Your task to perform on an android device: Go to Wikipedia Image 0: 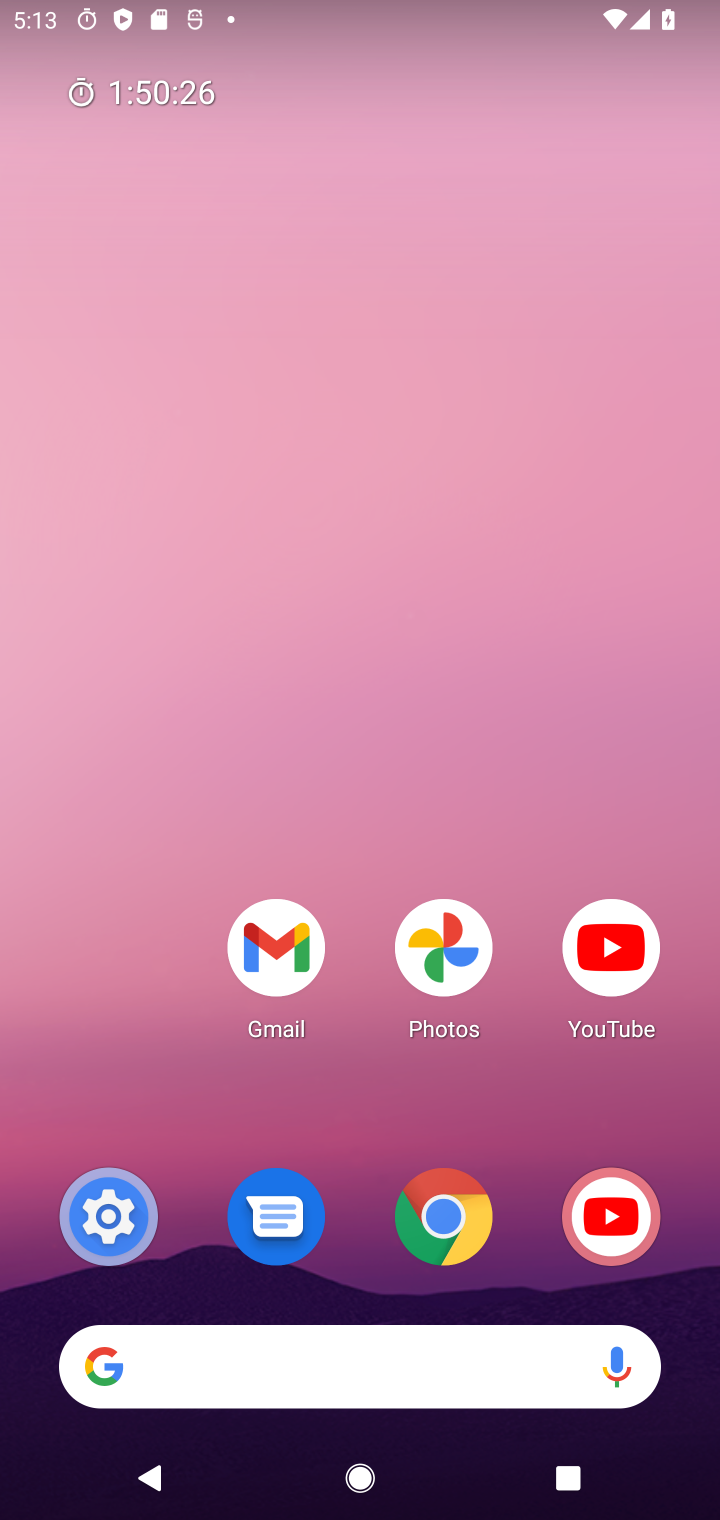
Step 0: click (436, 1201)
Your task to perform on an android device: Go to Wikipedia Image 1: 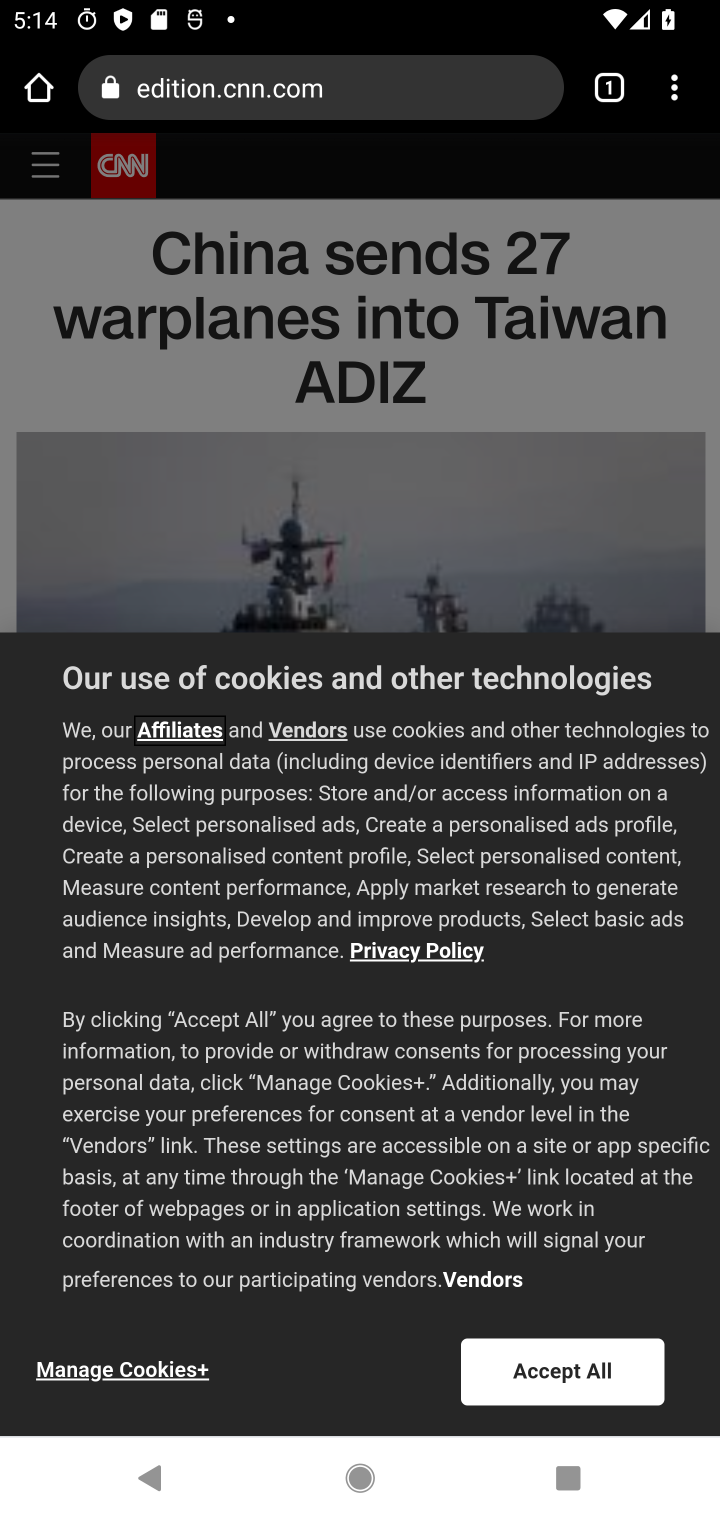
Step 1: click (608, 97)
Your task to perform on an android device: Go to Wikipedia Image 2: 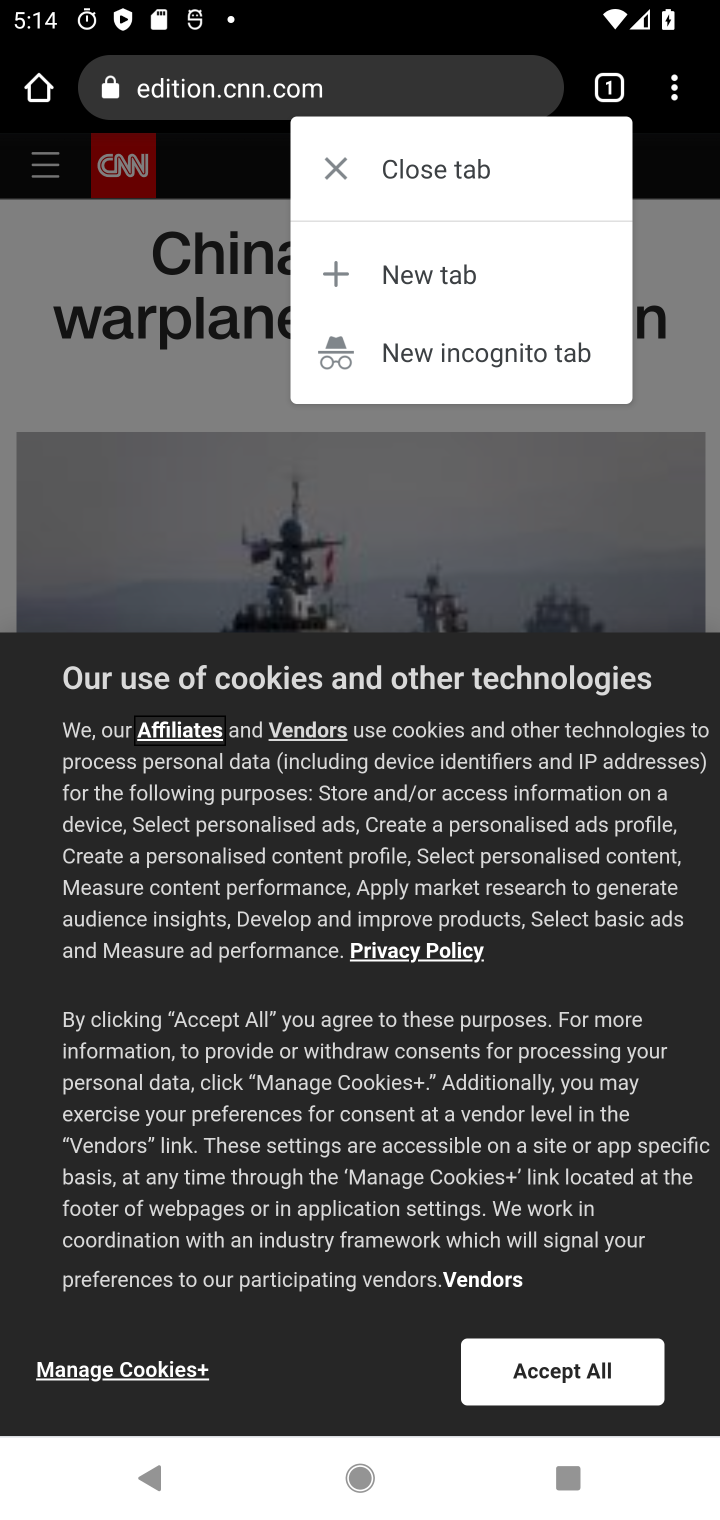
Step 2: click (414, 280)
Your task to perform on an android device: Go to Wikipedia Image 3: 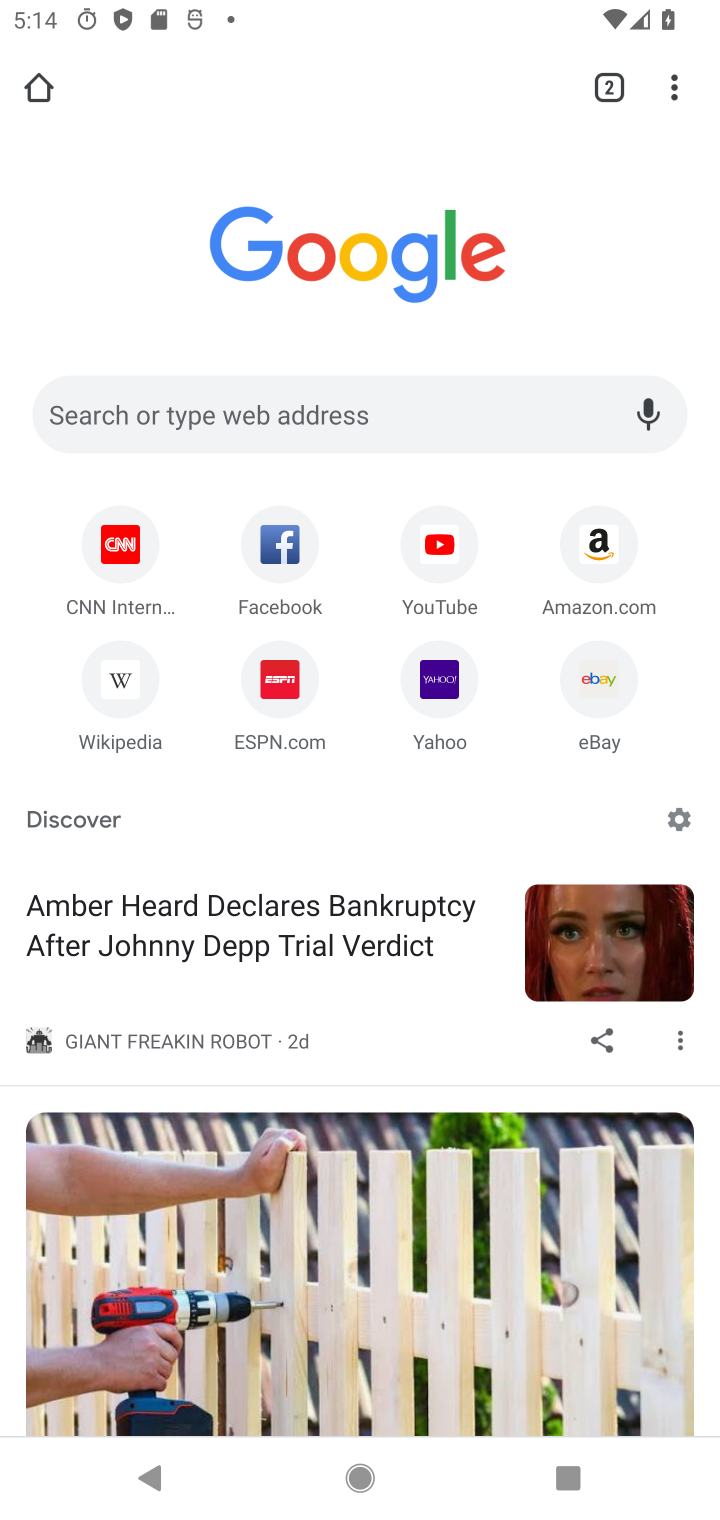
Step 3: click (106, 680)
Your task to perform on an android device: Go to Wikipedia Image 4: 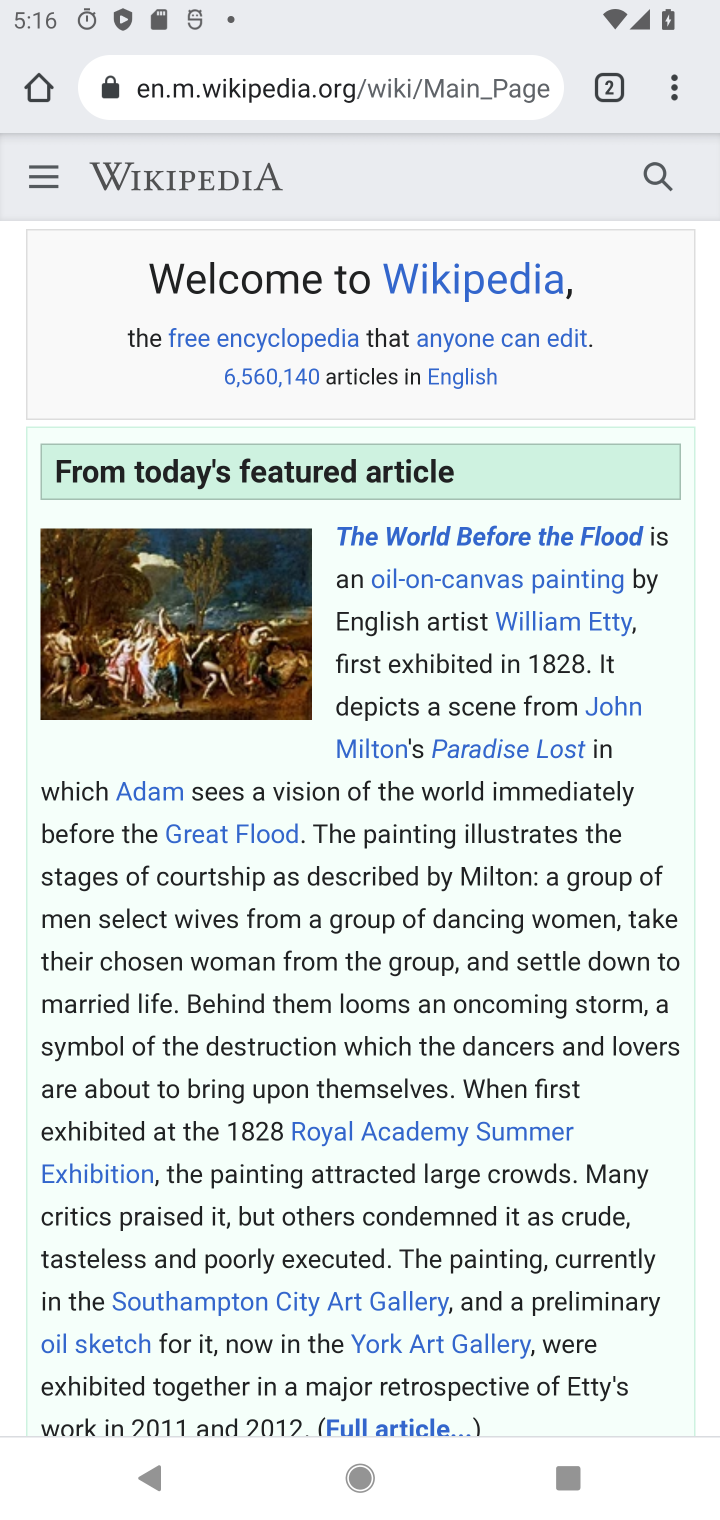
Step 4: task complete